Your task to perform on an android device: move a message to another label in the gmail app Image 0: 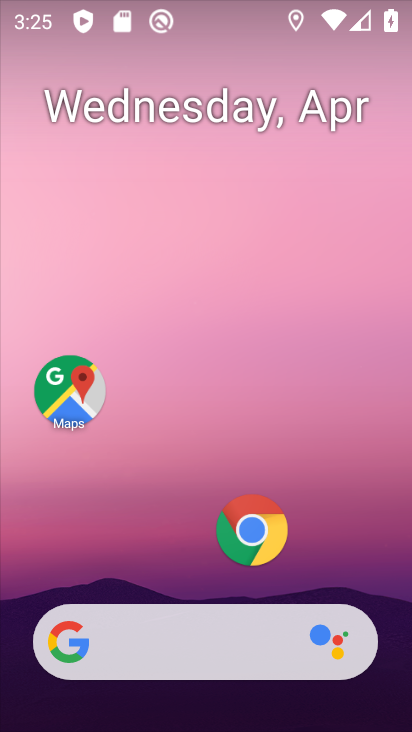
Step 0: drag from (183, 433) to (290, 11)
Your task to perform on an android device: move a message to another label in the gmail app Image 1: 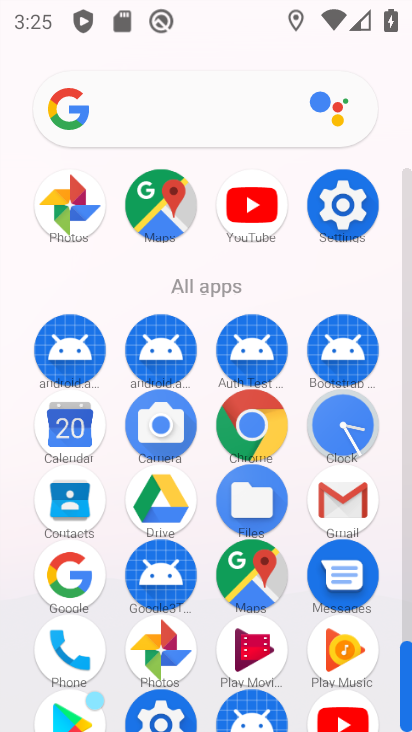
Step 1: click (324, 510)
Your task to perform on an android device: move a message to another label in the gmail app Image 2: 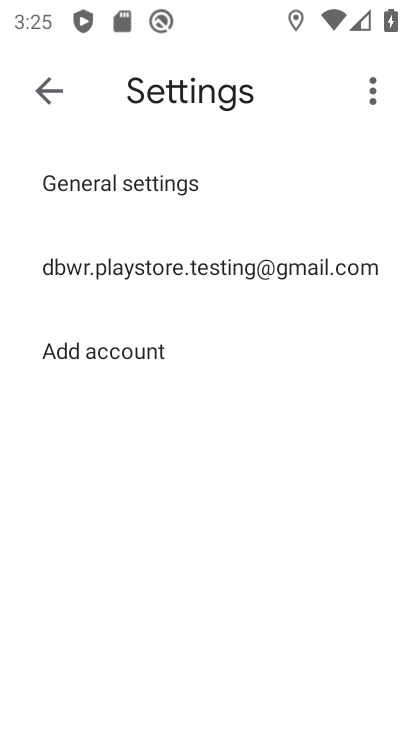
Step 2: click (206, 268)
Your task to perform on an android device: move a message to another label in the gmail app Image 3: 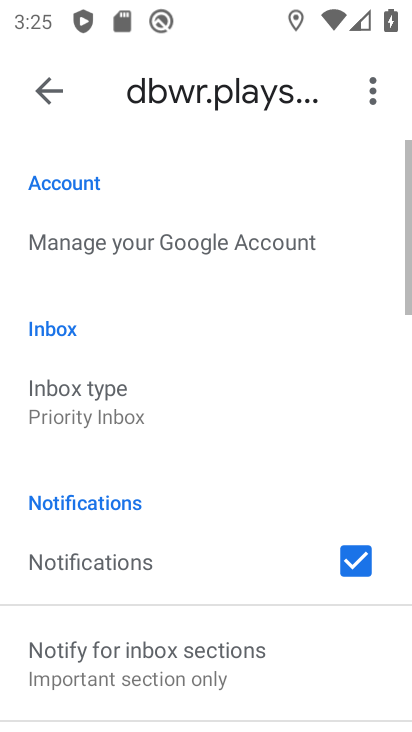
Step 3: click (39, 85)
Your task to perform on an android device: move a message to another label in the gmail app Image 4: 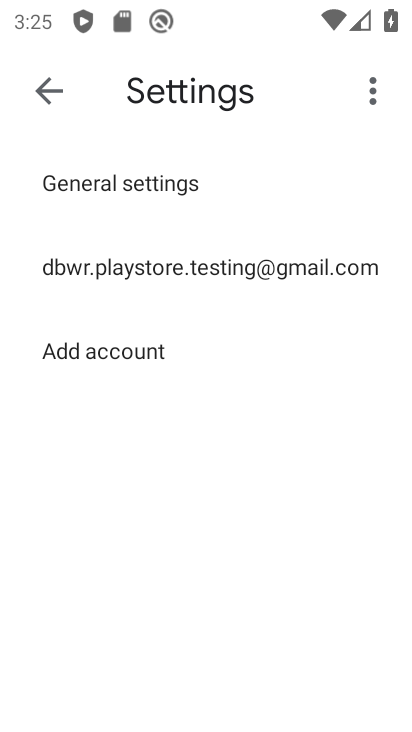
Step 4: click (39, 85)
Your task to perform on an android device: move a message to another label in the gmail app Image 5: 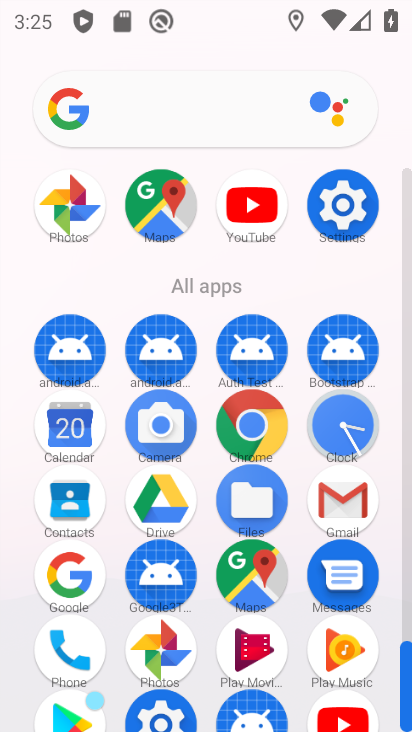
Step 5: click (334, 499)
Your task to perform on an android device: move a message to another label in the gmail app Image 6: 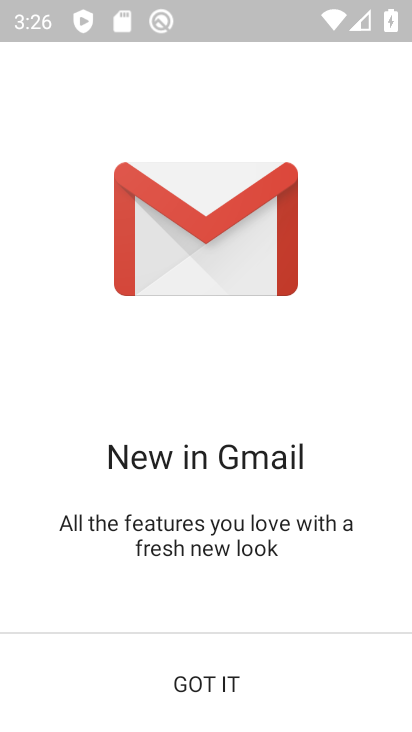
Step 6: click (212, 685)
Your task to perform on an android device: move a message to another label in the gmail app Image 7: 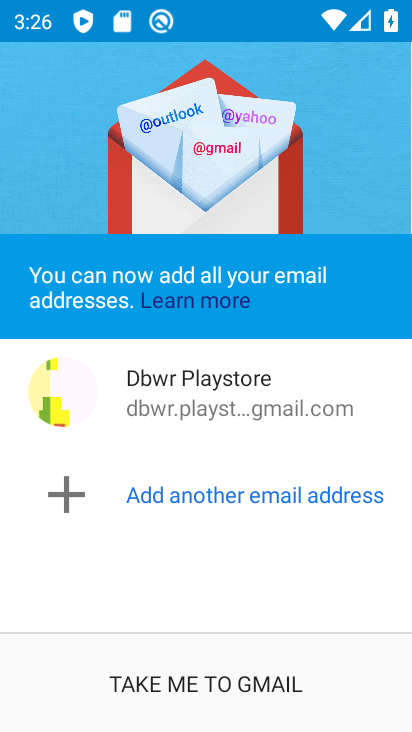
Step 7: click (216, 677)
Your task to perform on an android device: move a message to another label in the gmail app Image 8: 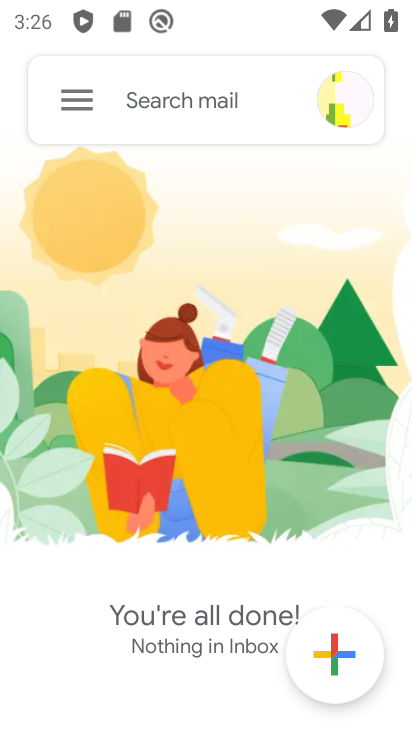
Step 8: click (69, 95)
Your task to perform on an android device: move a message to another label in the gmail app Image 9: 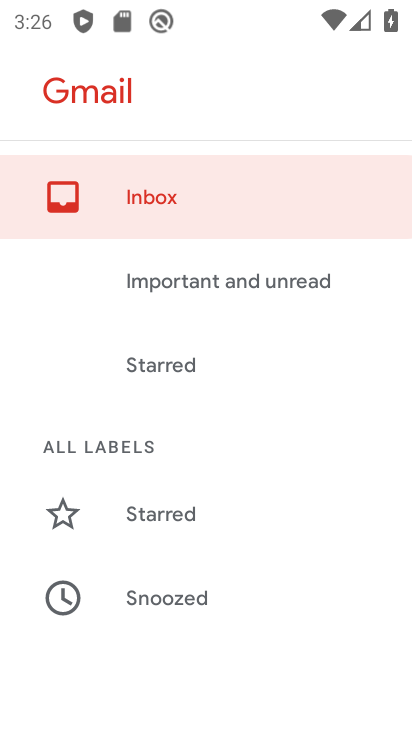
Step 9: drag from (198, 607) to (328, 131)
Your task to perform on an android device: move a message to another label in the gmail app Image 10: 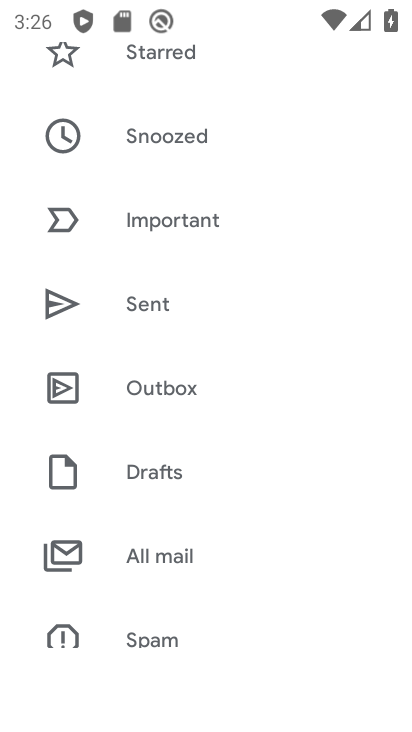
Step 10: click (175, 559)
Your task to perform on an android device: move a message to another label in the gmail app Image 11: 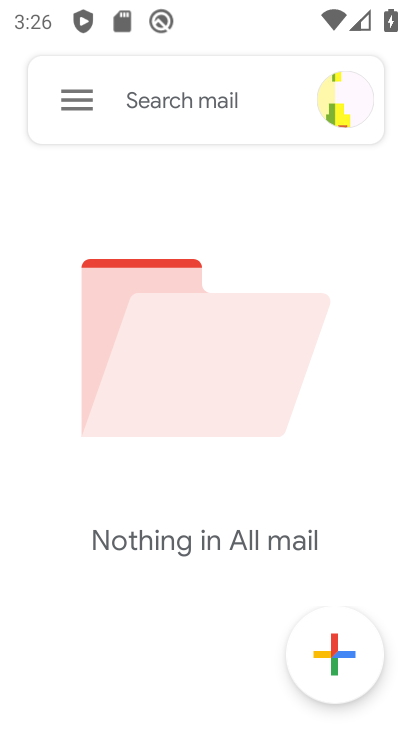
Step 11: task complete